Your task to perform on an android device: open device folders in google photos Image 0: 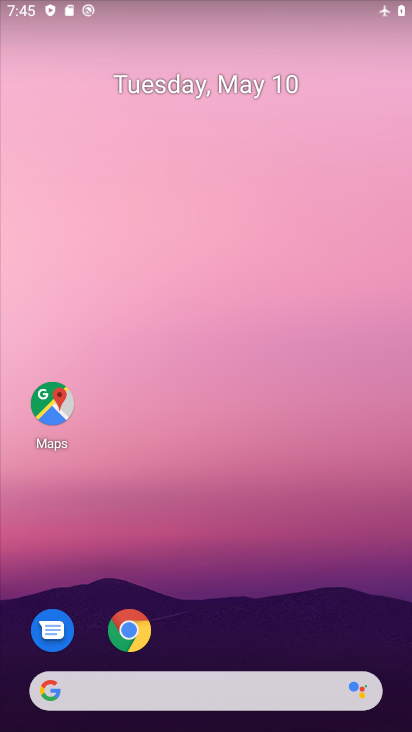
Step 0: drag from (196, 653) to (96, 723)
Your task to perform on an android device: open device folders in google photos Image 1: 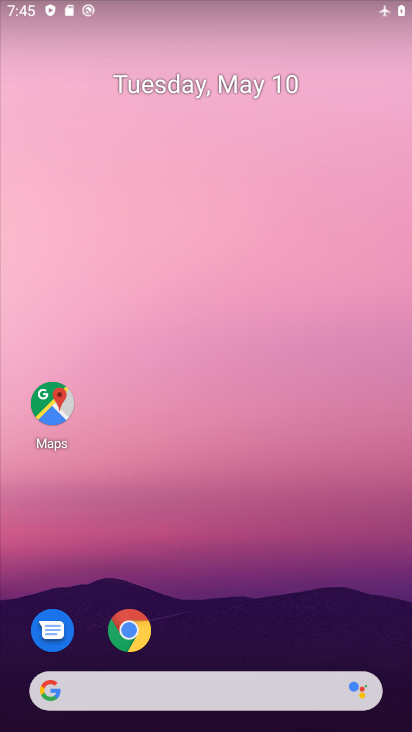
Step 1: drag from (217, 655) to (197, 15)
Your task to perform on an android device: open device folders in google photos Image 2: 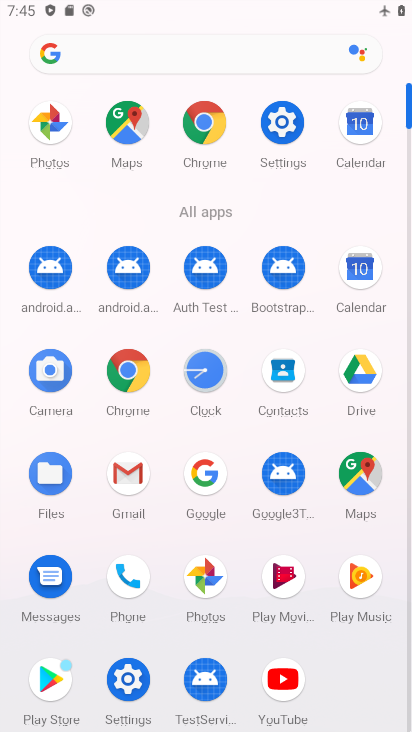
Step 2: click (213, 574)
Your task to perform on an android device: open device folders in google photos Image 3: 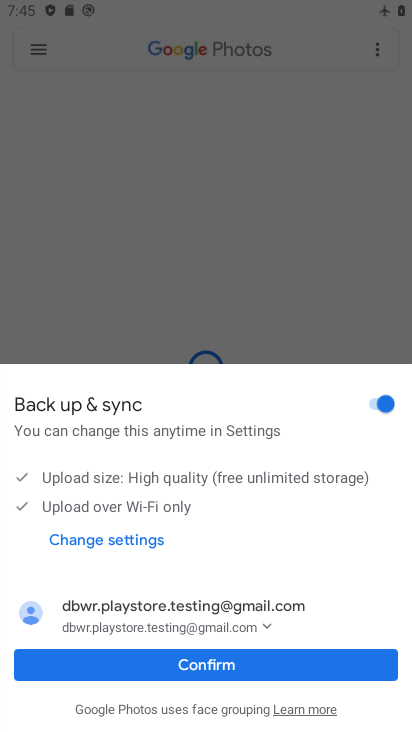
Step 3: click (212, 670)
Your task to perform on an android device: open device folders in google photos Image 4: 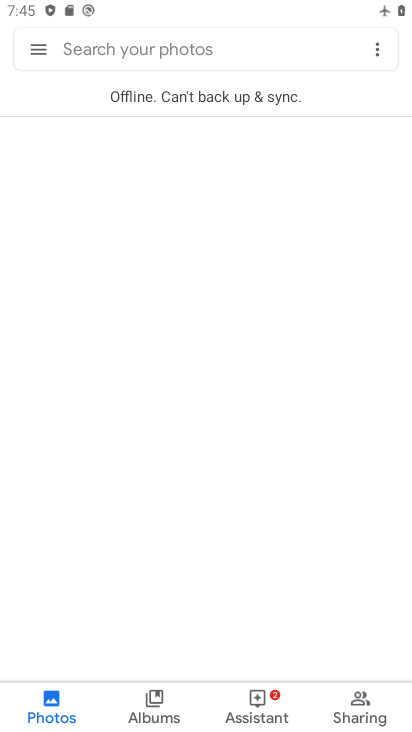
Step 4: click (31, 38)
Your task to perform on an android device: open device folders in google photos Image 5: 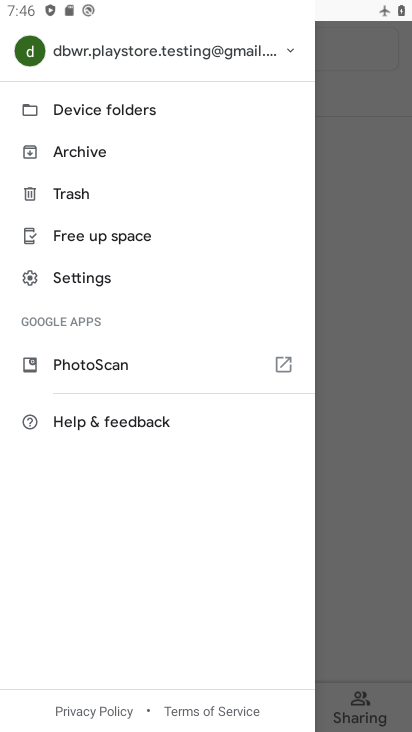
Step 5: click (92, 112)
Your task to perform on an android device: open device folders in google photos Image 6: 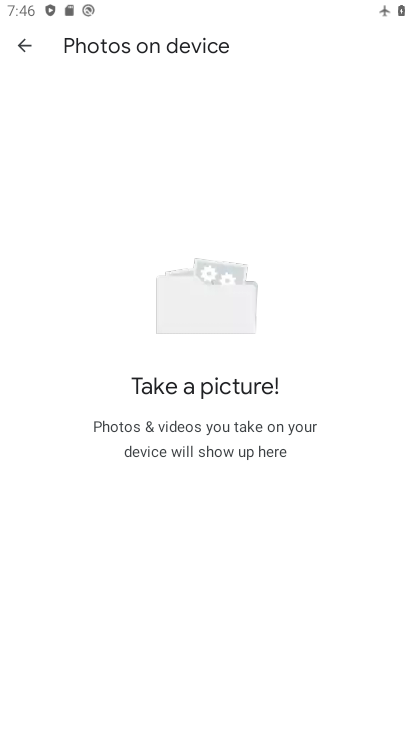
Step 6: task complete